Your task to perform on an android device: When is my next appointment? Image 0: 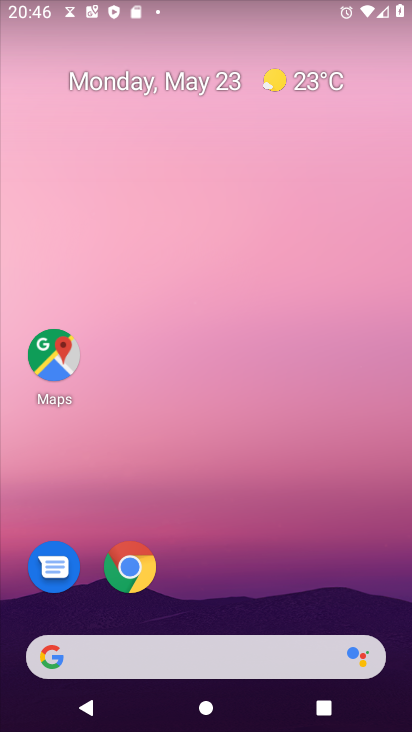
Step 0: drag from (303, 384) to (290, 276)
Your task to perform on an android device: When is my next appointment? Image 1: 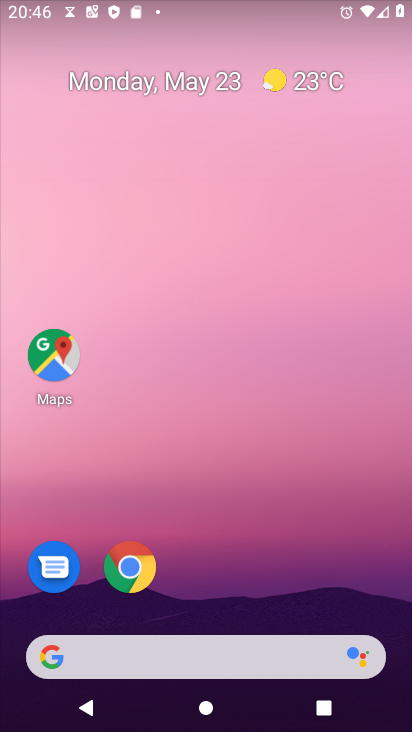
Step 1: drag from (238, 574) to (302, 119)
Your task to perform on an android device: When is my next appointment? Image 2: 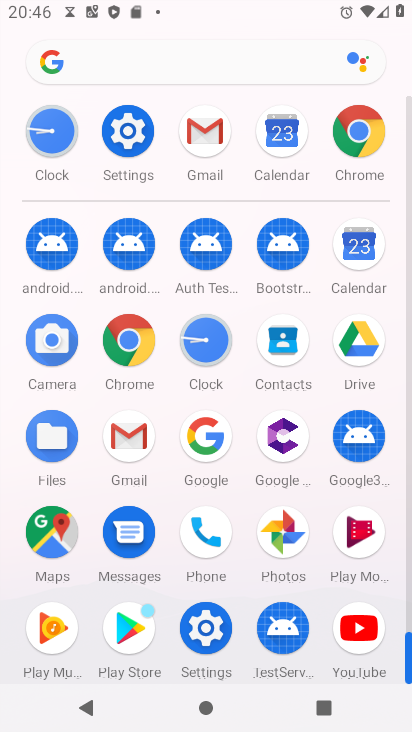
Step 2: click (343, 235)
Your task to perform on an android device: When is my next appointment? Image 3: 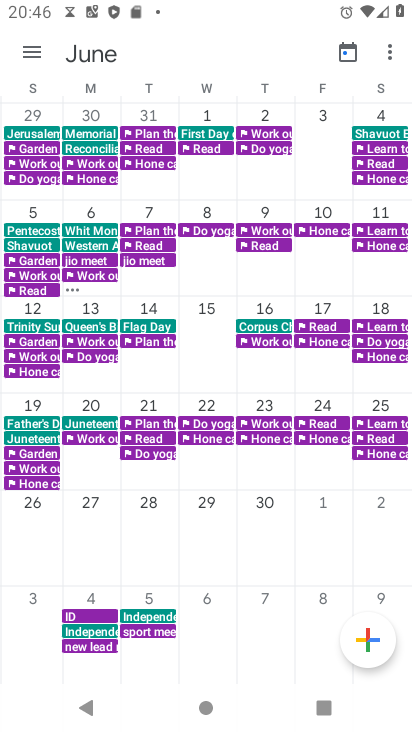
Step 3: drag from (21, 281) to (363, 370)
Your task to perform on an android device: When is my next appointment? Image 4: 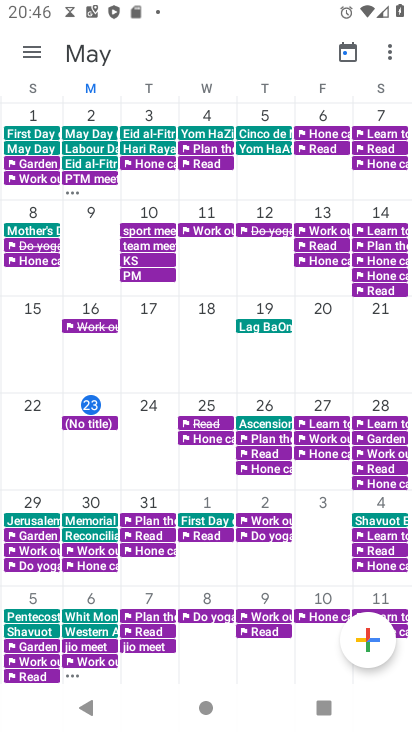
Step 4: click (208, 406)
Your task to perform on an android device: When is my next appointment? Image 5: 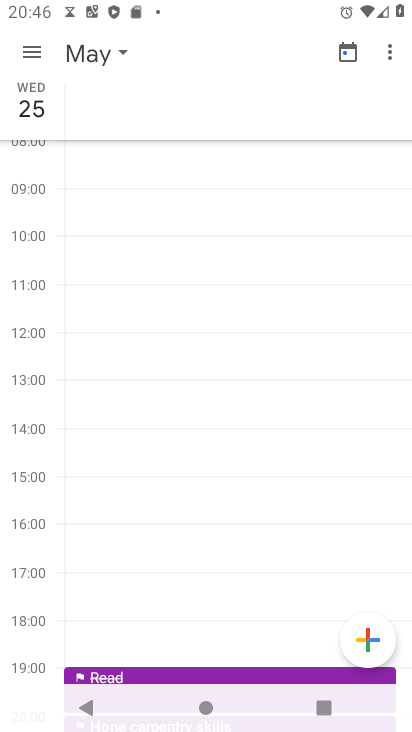
Step 5: task complete